Your task to perform on an android device: open device folders in google photos Image 0: 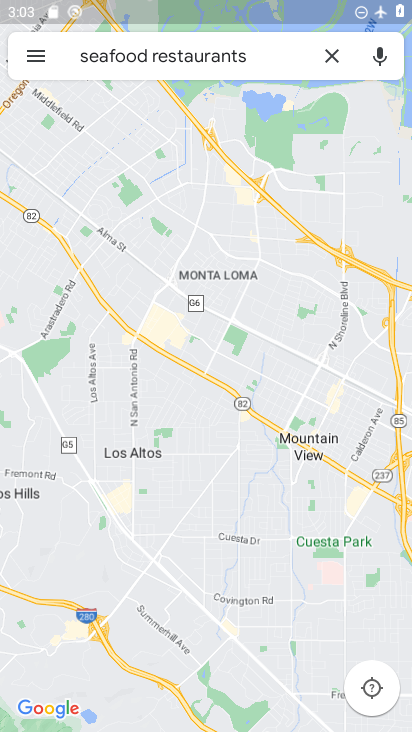
Step 0: press home button
Your task to perform on an android device: open device folders in google photos Image 1: 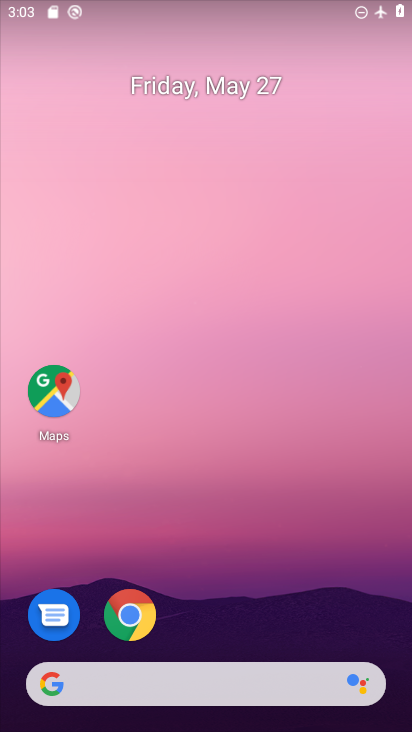
Step 1: drag from (265, 425) to (17, 278)
Your task to perform on an android device: open device folders in google photos Image 2: 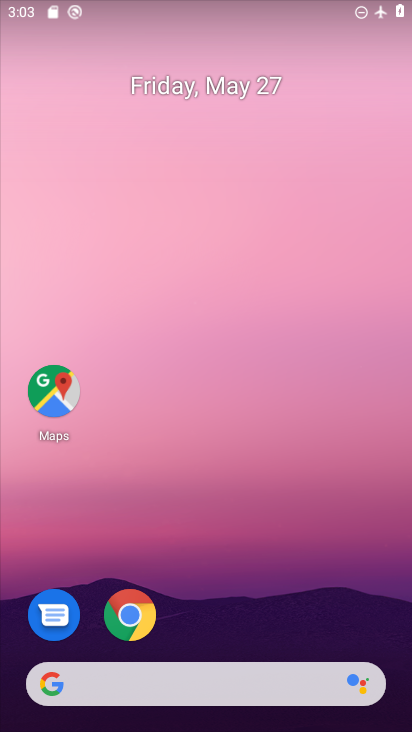
Step 2: drag from (209, 208) to (139, 23)
Your task to perform on an android device: open device folders in google photos Image 3: 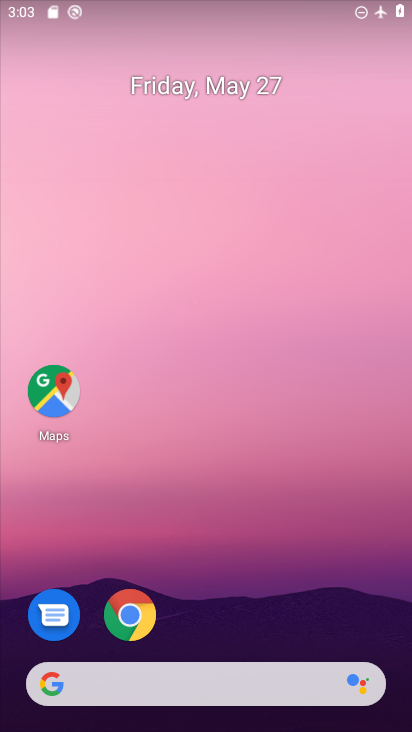
Step 3: drag from (261, 201) to (212, 8)
Your task to perform on an android device: open device folders in google photos Image 4: 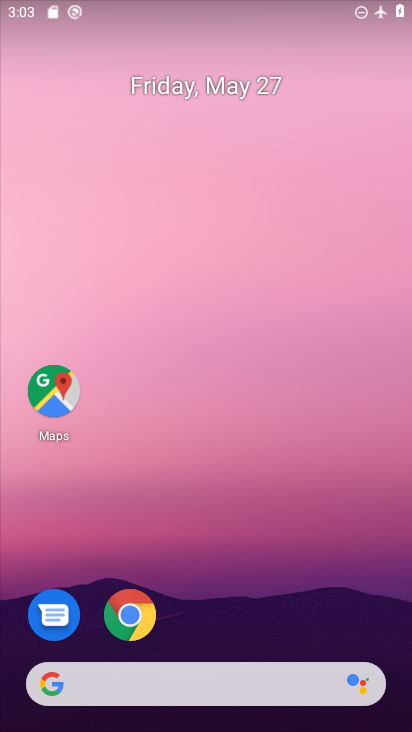
Step 4: drag from (241, 550) to (168, 59)
Your task to perform on an android device: open device folders in google photos Image 5: 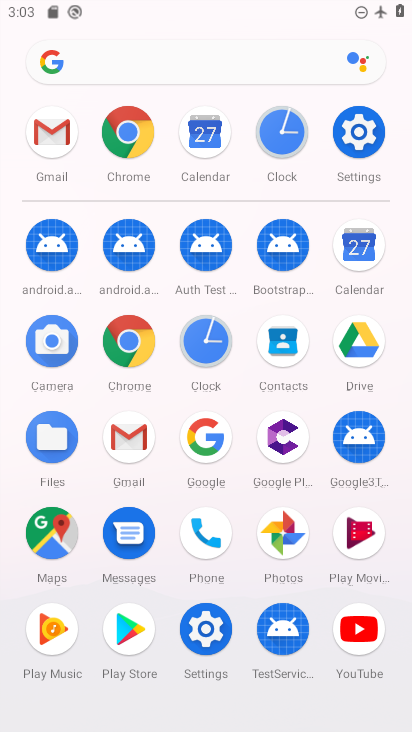
Step 5: click (295, 537)
Your task to perform on an android device: open device folders in google photos Image 6: 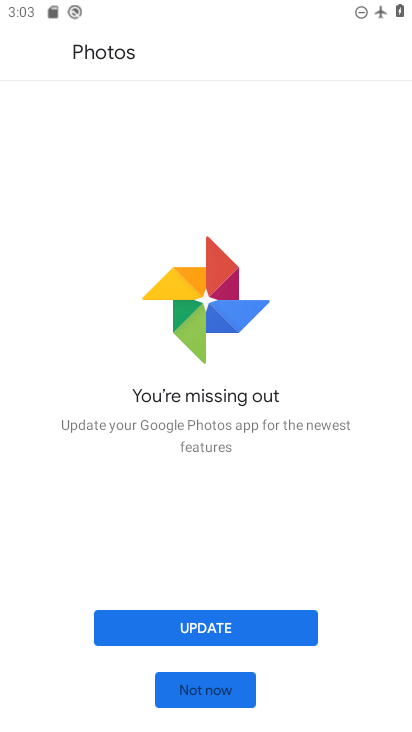
Step 6: click (236, 623)
Your task to perform on an android device: open device folders in google photos Image 7: 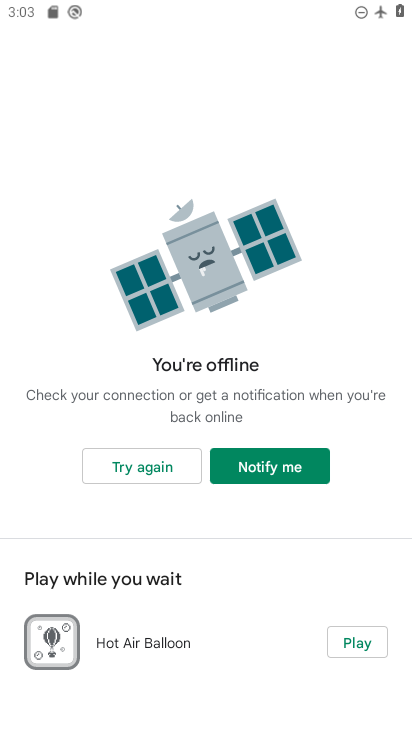
Step 7: task complete